Your task to perform on an android device: Find the nearest electronics store that's open Image 0: 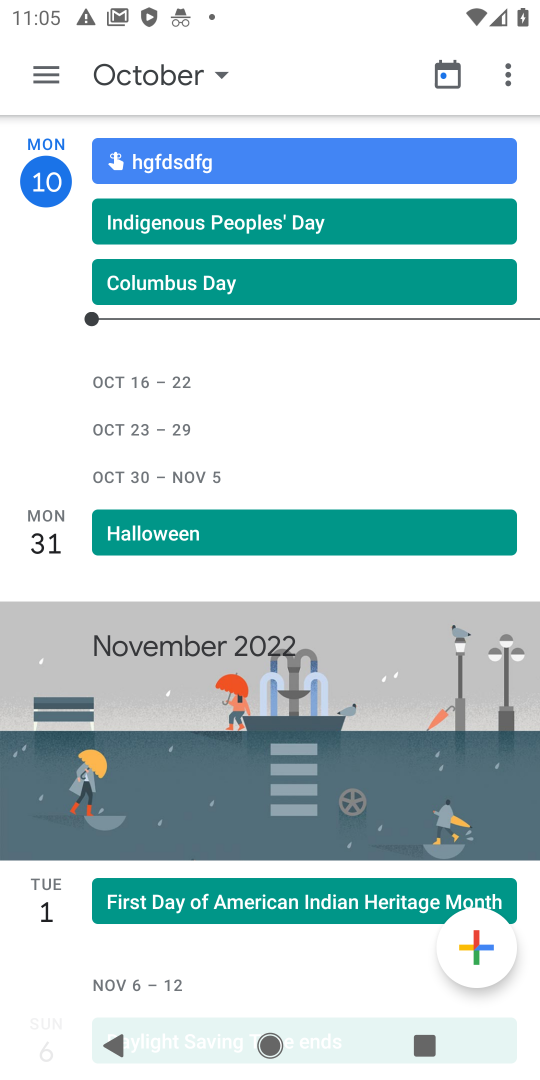
Step 0: press home button
Your task to perform on an android device: Find the nearest electronics store that's open Image 1: 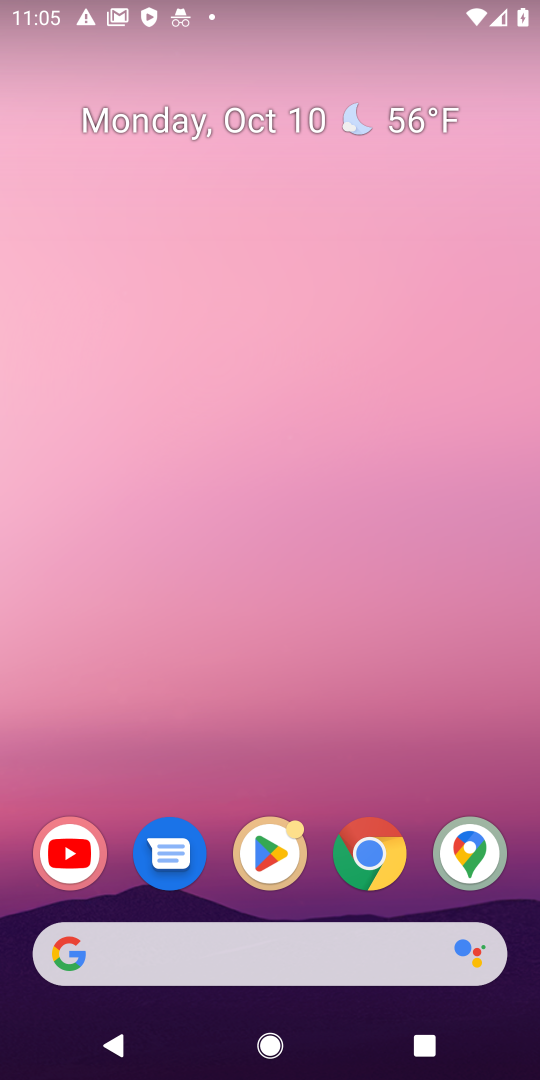
Step 1: click (261, 956)
Your task to perform on an android device: Find the nearest electronics store that's open Image 2: 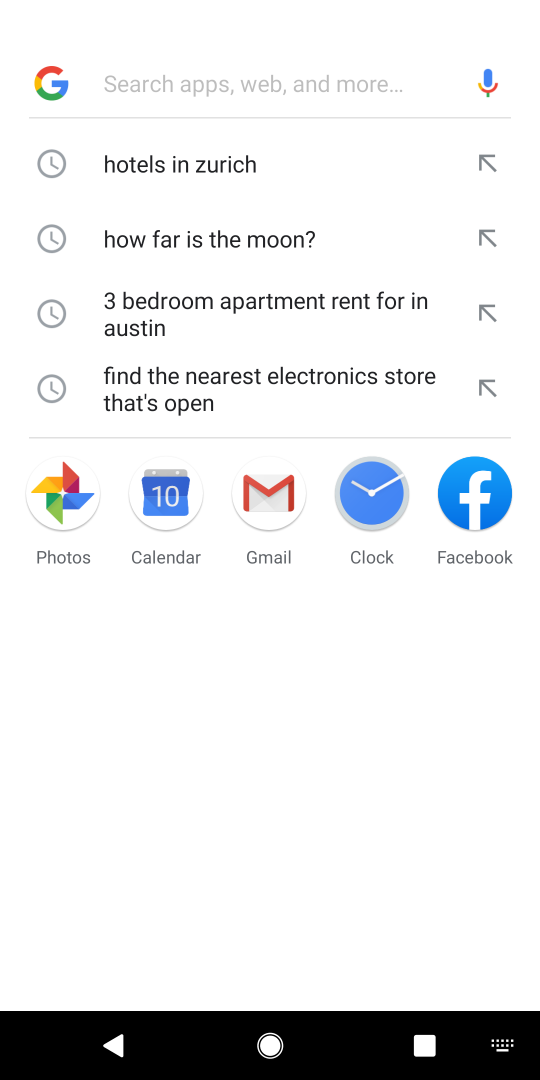
Step 2: type "Find the nearest electronics store that's open"
Your task to perform on an android device: Find the nearest electronics store that's open Image 3: 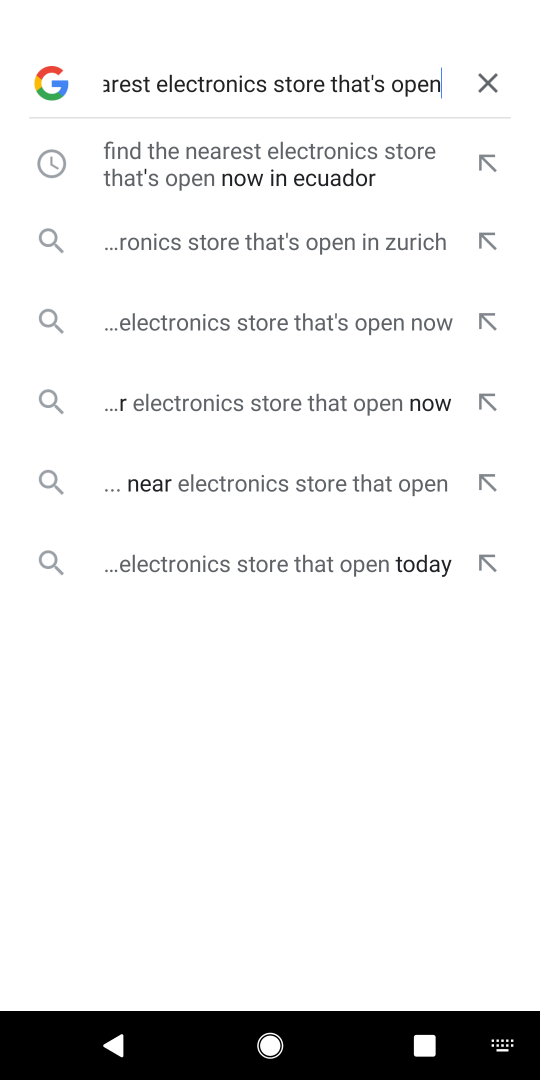
Step 3: press enter
Your task to perform on an android device: Find the nearest electronics store that's open Image 4: 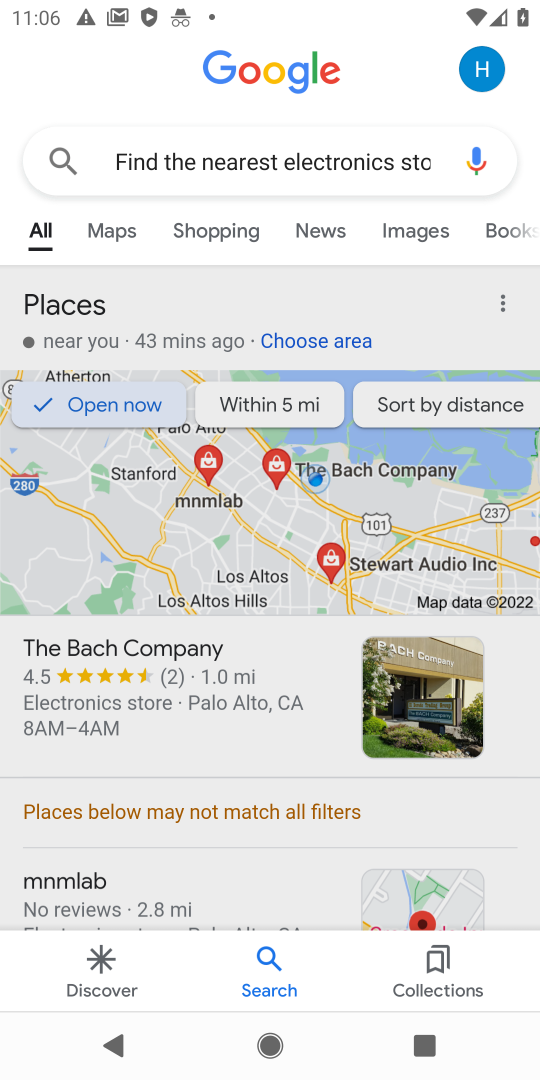
Step 4: drag from (237, 852) to (267, 712)
Your task to perform on an android device: Find the nearest electronics store that's open Image 5: 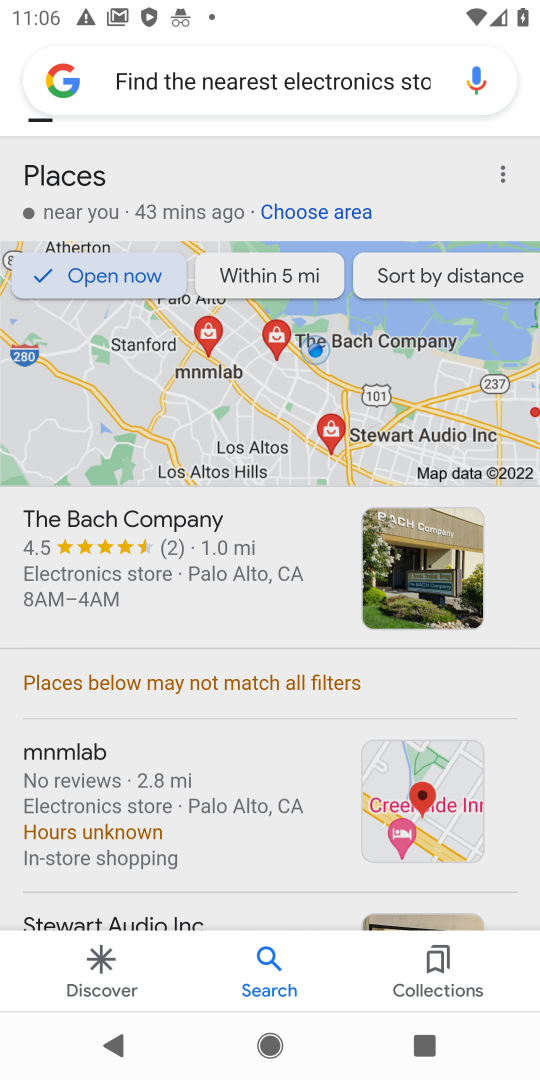
Step 5: drag from (260, 833) to (299, 638)
Your task to perform on an android device: Find the nearest electronics store that's open Image 6: 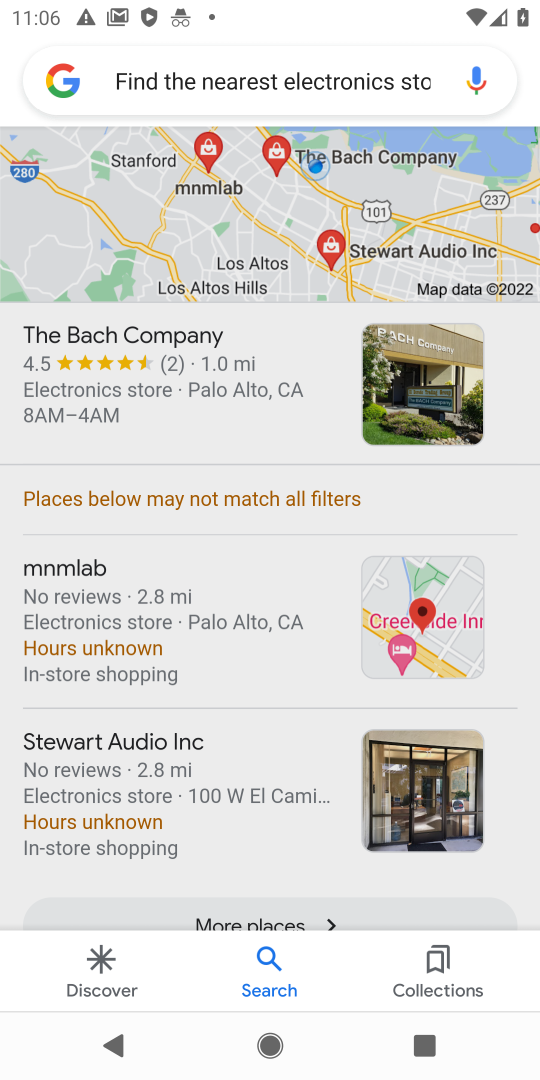
Step 6: drag from (249, 829) to (283, 628)
Your task to perform on an android device: Find the nearest electronics store that's open Image 7: 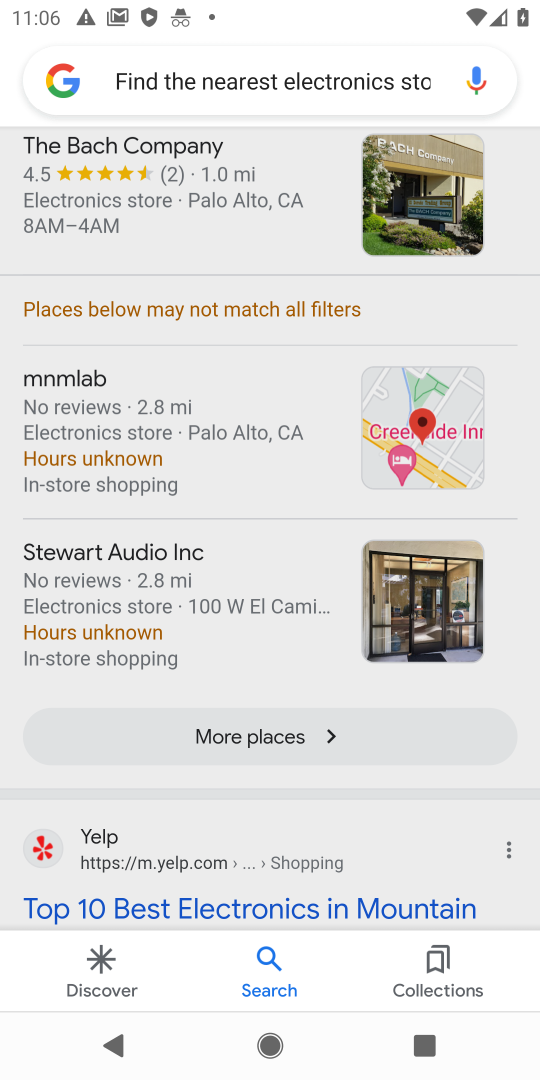
Step 7: click (251, 740)
Your task to perform on an android device: Find the nearest electronics store that's open Image 8: 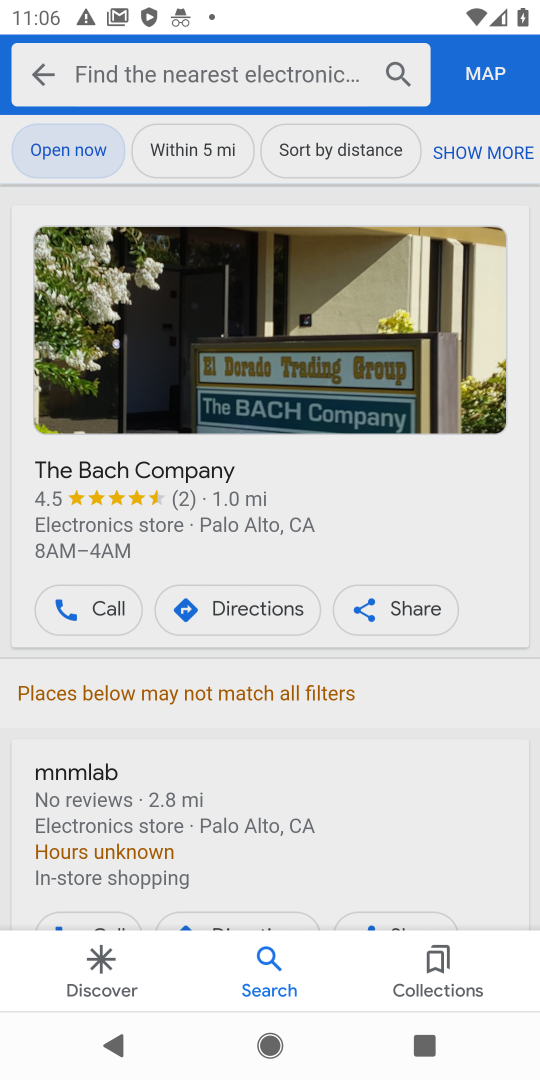
Step 8: task complete